Your task to perform on an android device: star an email in the gmail app Image 0: 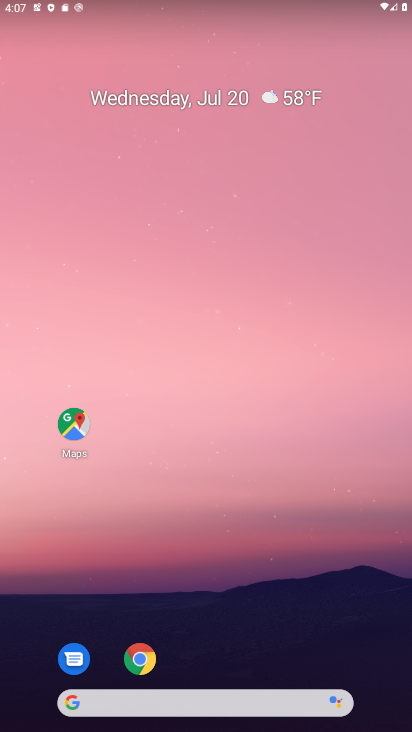
Step 0: drag from (207, 557) to (208, 70)
Your task to perform on an android device: star an email in the gmail app Image 1: 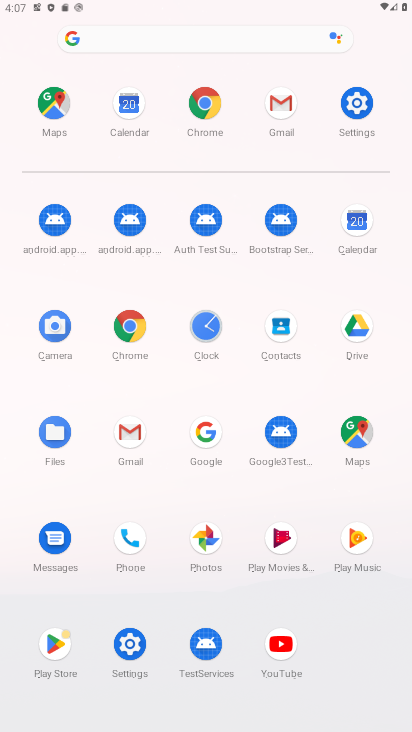
Step 1: click (139, 431)
Your task to perform on an android device: star an email in the gmail app Image 2: 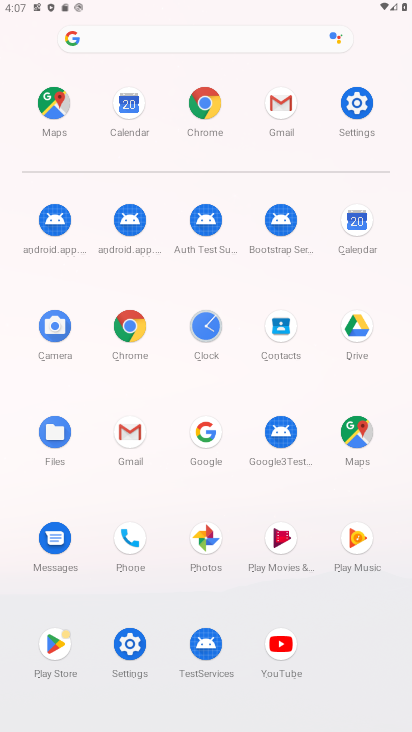
Step 2: click (139, 431)
Your task to perform on an android device: star an email in the gmail app Image 3: 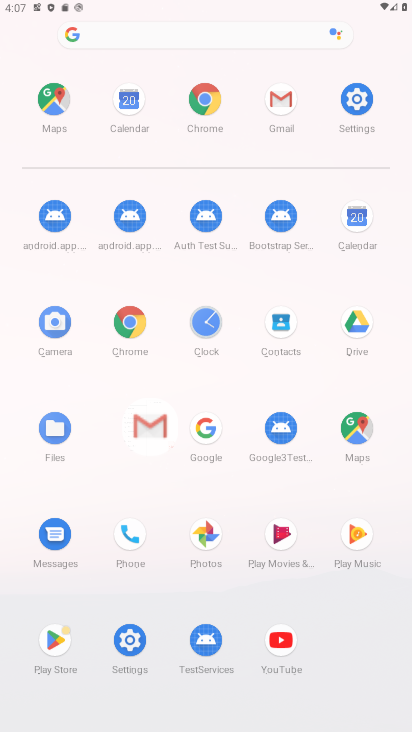
Step 3: click (139, 431)
Your task to perform on an android device: star an email in the gmail app Image 4: 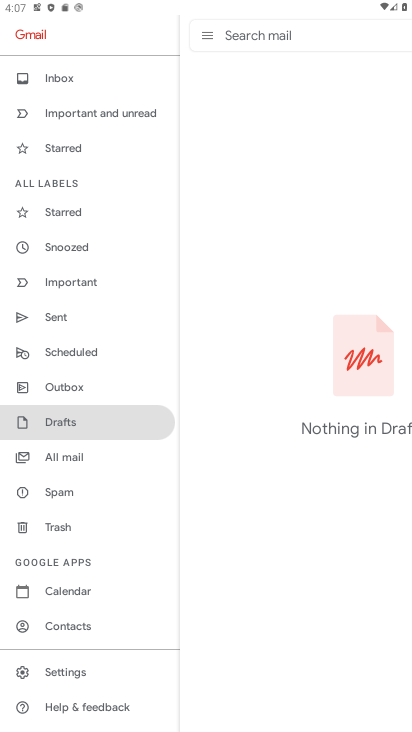
Step 4: click (67, 456)
Your task to perform on an android device: star an email in the gmail app Image 5: 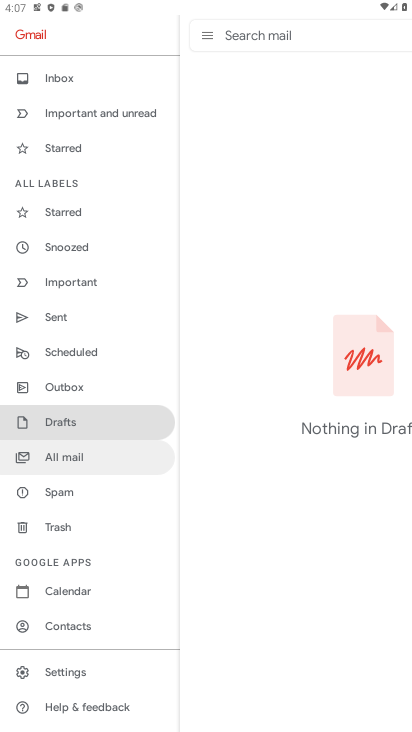
Step 5: click (67, 455)
Your task to perform on an android device: star an email in the gmail app Image 6: 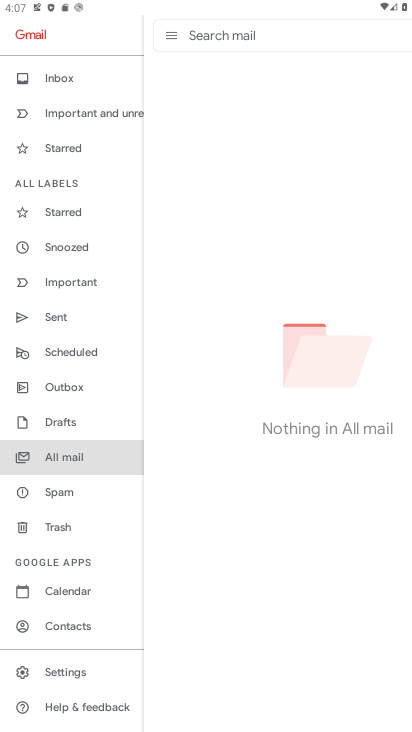
Step 6: task complete